Your task to perform on an android device: Go to Yahoo.com Image 0: 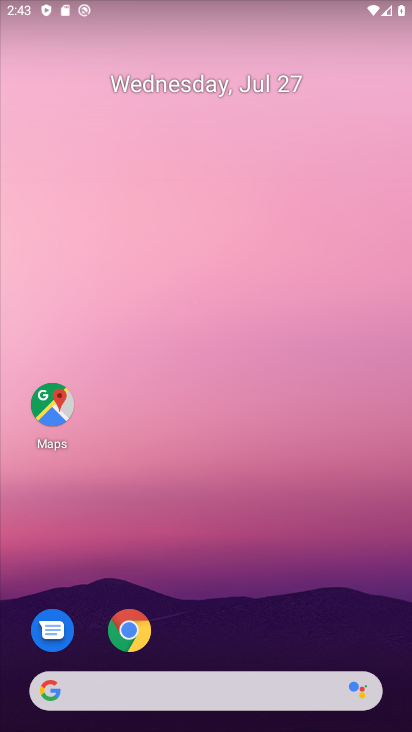
Step 0: drag from (278, 696) to (298, 402)
Your task to perform on an android device: Go to Yahoo.com Image 1: 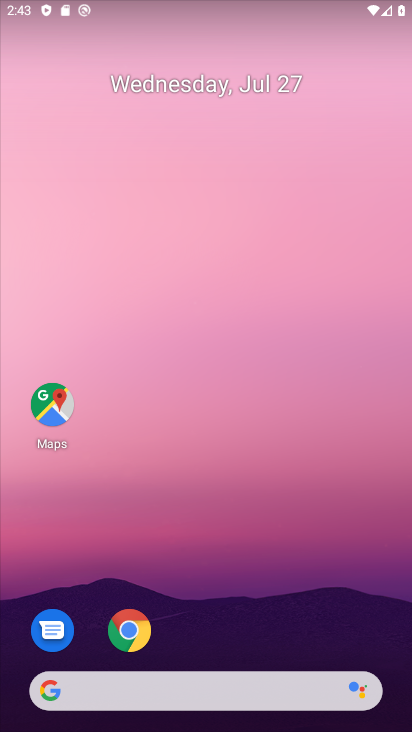
Step 1: drag from (279, 301) to (279, 210)
Your task to perform on an android device: Go to Yahoo.com Image 2: 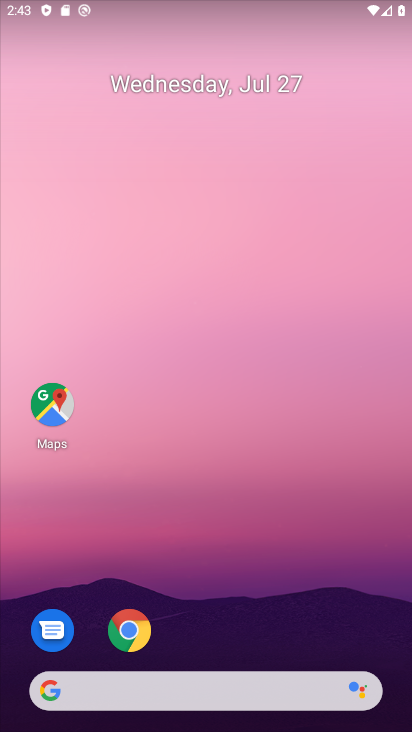
Step 2: drag from (246, 608) to (196, 270)
Your task to perform on an android device: Go to Yahoo.com Image 3: 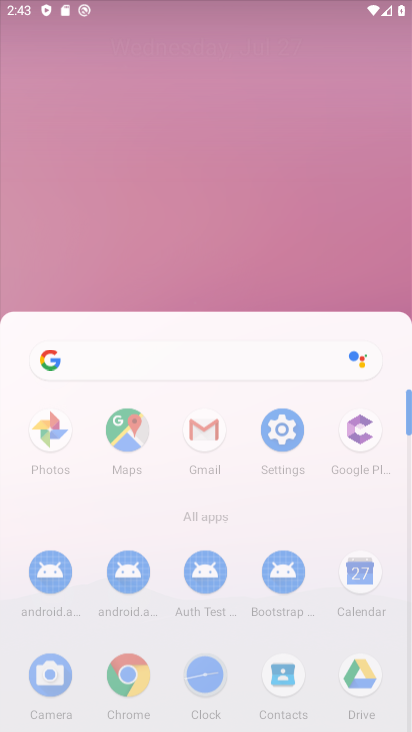
Step 3: drag from (246, 594) to (214, 376)
Your task to perform on an android device: Go to Yahoo.com Image 4: 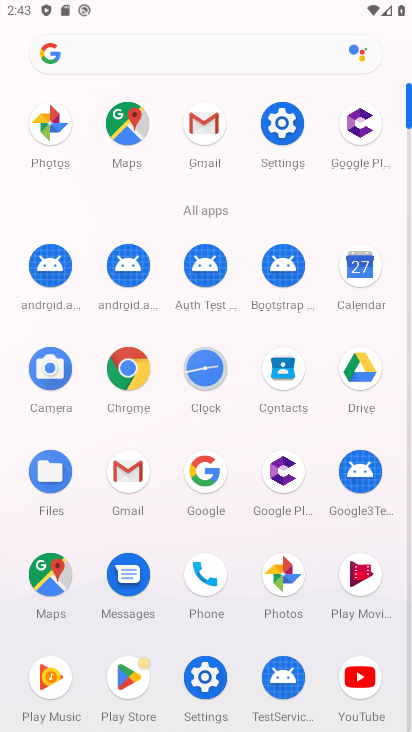
Step 4: click (115, 359)
Your task to perform on an android device: Go to Yahoo.com Image 5: 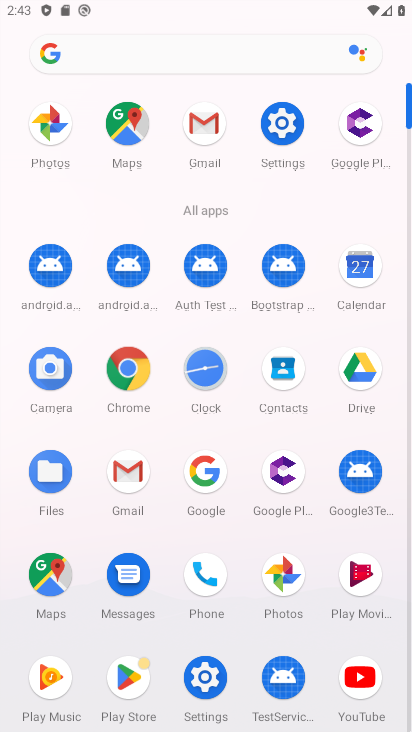
Step 5: click (112, 363)
Your task to perform on an android device: Go to Yahoo.com Image 6: 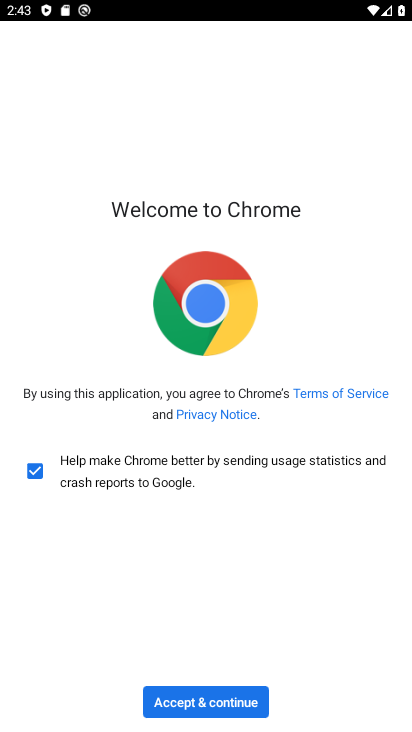
Step 6: click (190, 704)
Your task to perform on an android device: Go to Yahoo.com Image 7: 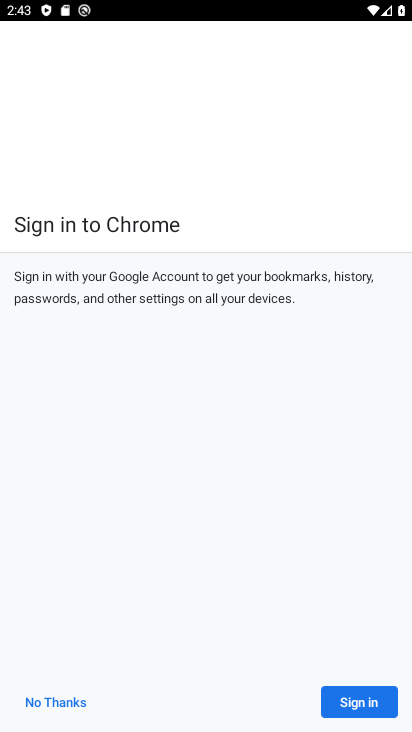
Step 7: click (190, 700)
Your task to perform on an android device: Go to Yahoo.com Image 8: 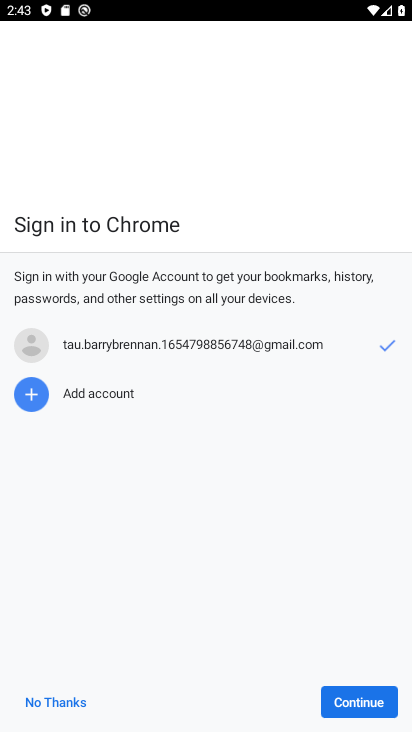
Step 8: click (190, 700)
Your task to perform on an android device: Go to Yahoo.com Image 9: 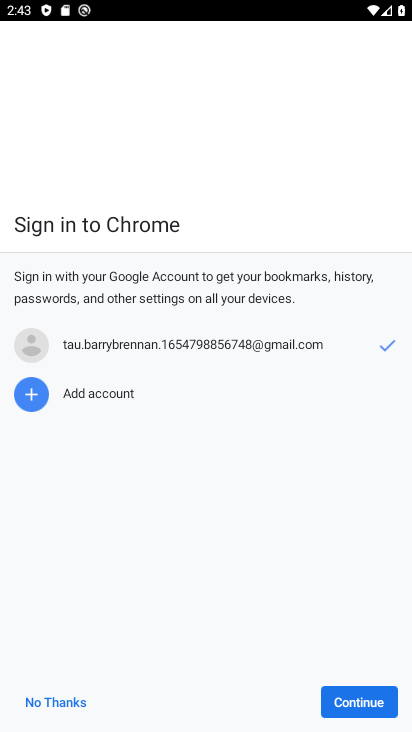
Step 9: click (191, 698)
Your task to perform on an android device: Go to Yahoo.com Image 10: 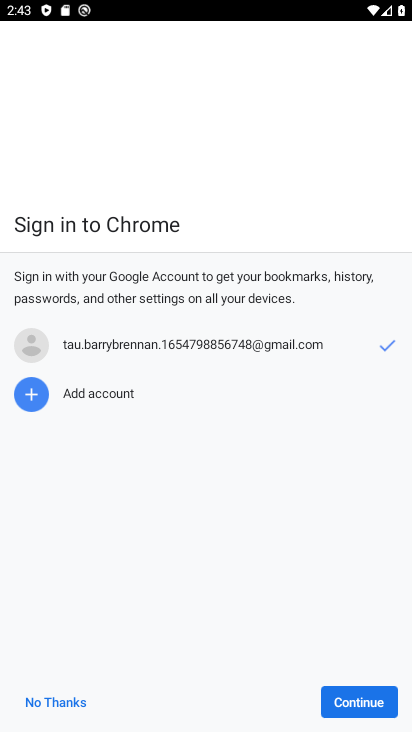
Step 10: click (45, 687)
Your task to perform on an android device: Go to Yahoo.com Image 11: 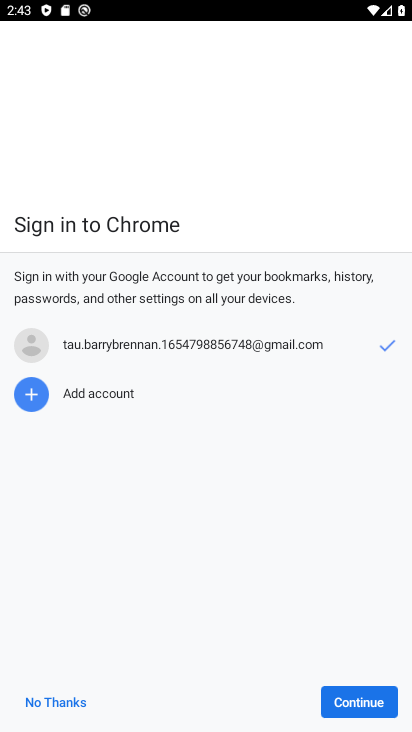
Step 11: click (53, 686)
Your task to perform on an android device: Go to Yahoo.com Image 12: 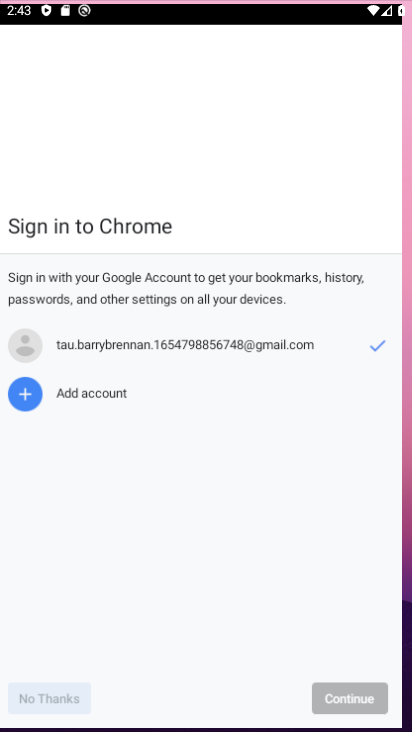
Step 12: click (57, 685)
Your task to perform on an android device: Go to Yahoo.com Image 13: 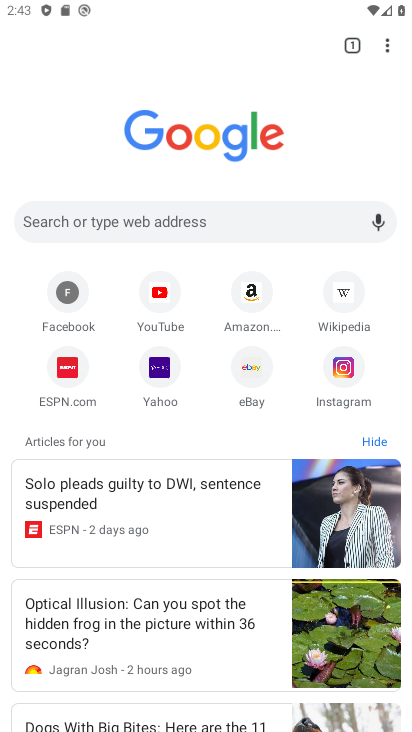
Step 13: click (164, 368)
Your task to perform on an android device: Go to Yahoo.com Image 14: 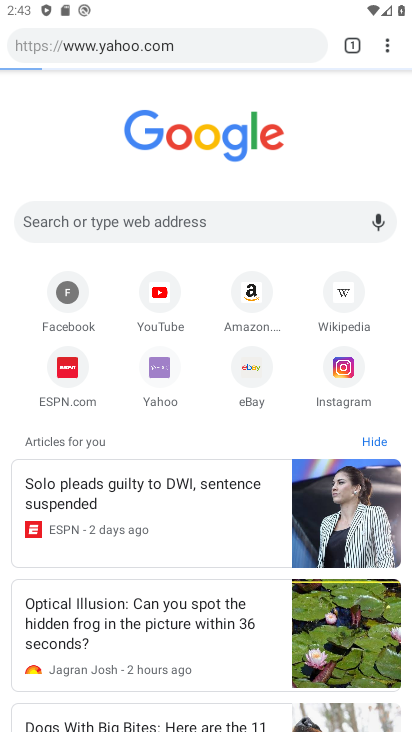
Step 14: click (166, 369)
Your task to perform on an android device: Go to Yahoo.com Image 15: 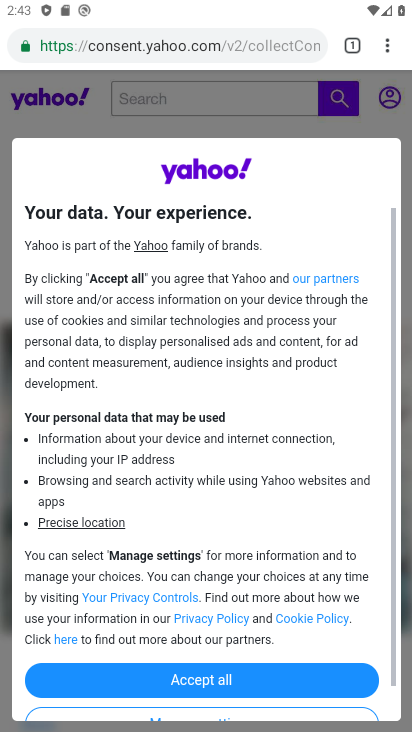
Step 15: task complete